Your task to perform on an android device: Open Chrome and go to settings Image 0: 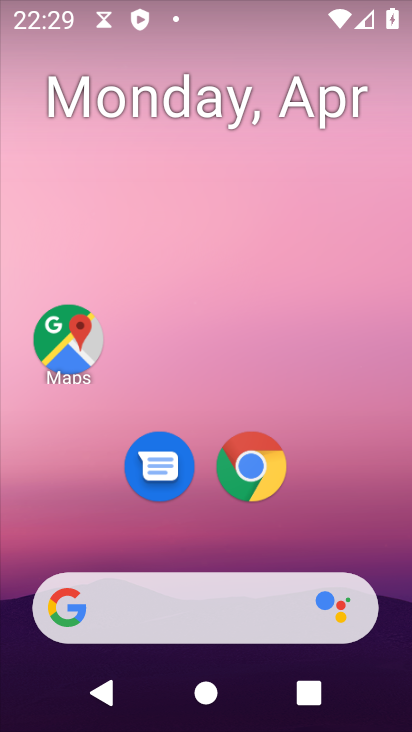
Step 0: click (246, 465)
Your task to perform on an android device: Open Chrome and go to settings Image 1: 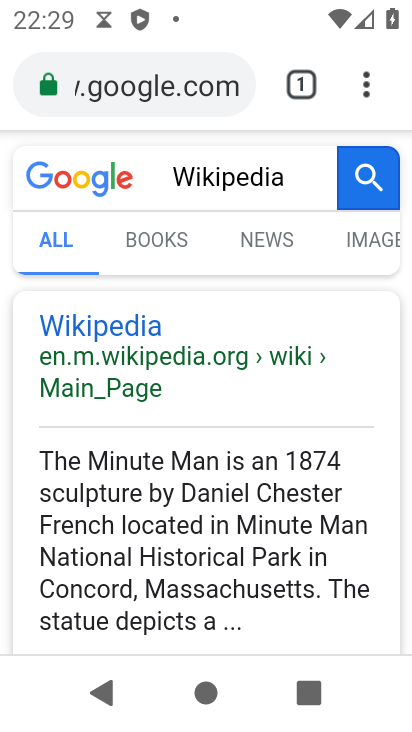
Step 1: click (380, 84)
Your task to perform on an android device: Open Chrome and go to settings Image 2: 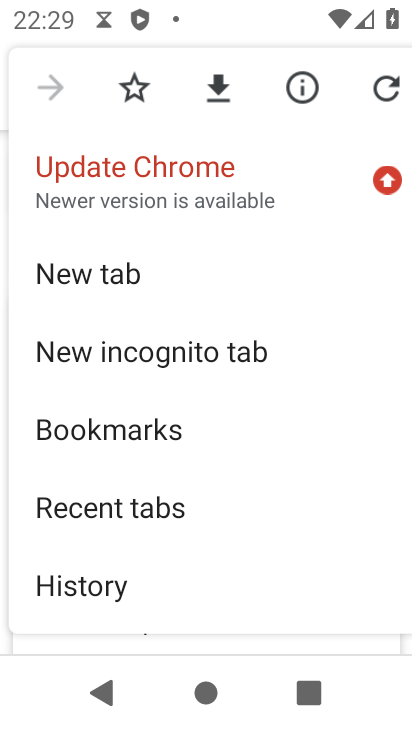
Step 2: drag from (154, 551) to (188, 387)
Your task to perform on an android device: Open Chrome and go to settings Image 3: 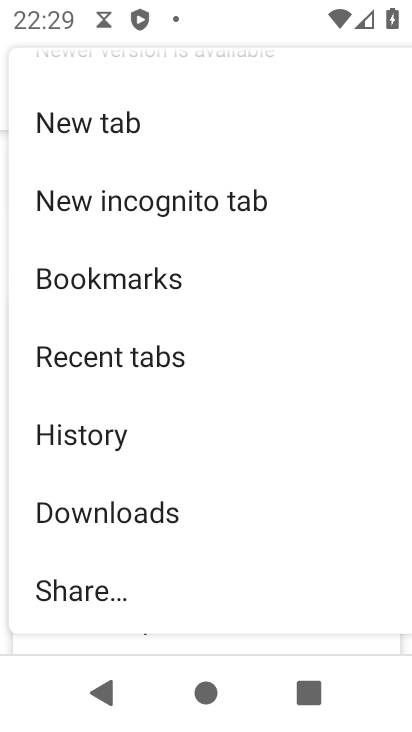
Step 3: drag from (156, 538) to (217, 406)
Your task to perform on an android device: Open Chrome and go to settings Image 4: 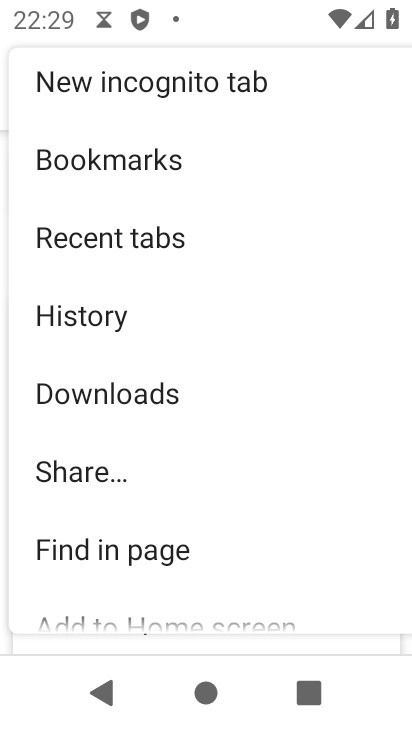
Step 4: drag from (187, 505) to (236, 377)
Your task to perform on an android device: Open Chrome and go to settings Image 5: 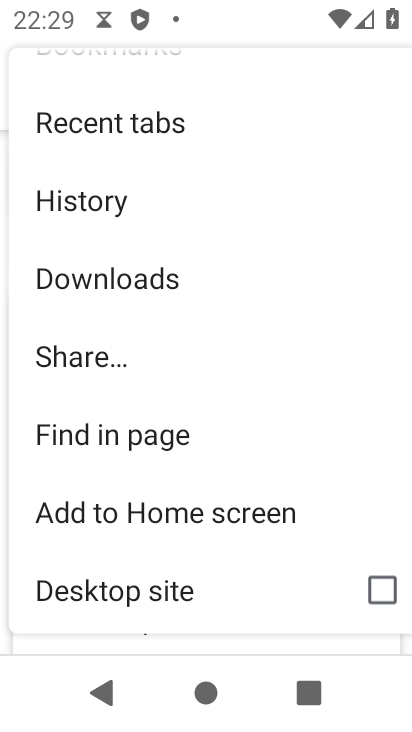
Step 5: drag from (170, 540) to (205, 359)
Your task to perform on an android device: Open Chrome and go to settings Image 6: 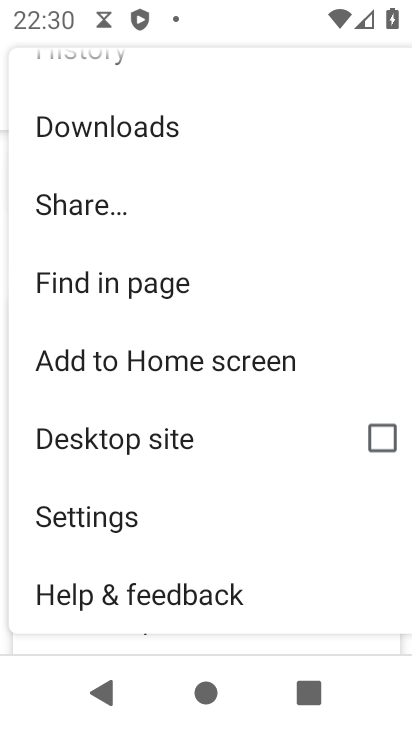
Step 6: click (115, 506)
Your task to perform on an android device: Open Chrome and go to settings Image 7: 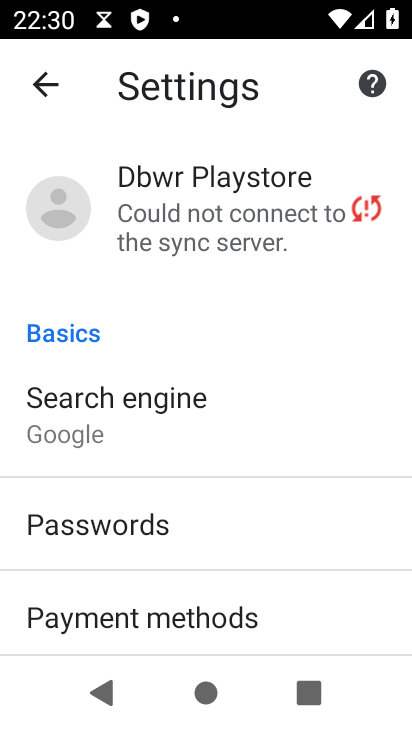
Step 7: task complete